Your task to perform on an android device: Search for logitech g502 on amazon, select the first entry, and add it to the cart. Image 0: 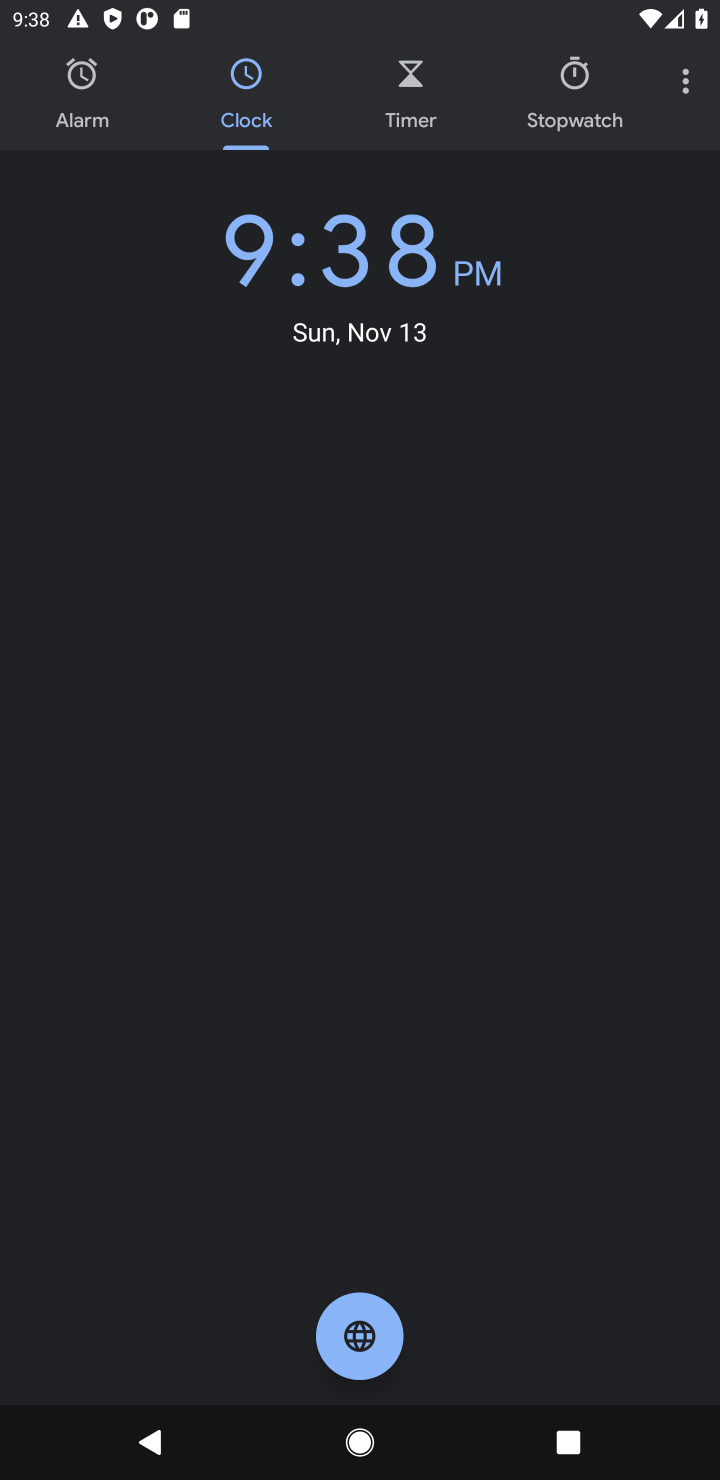
Step 0: press home button
Your task to perform on an android device: Search for logitech g502 on amazon, select the first entry, and add it to the cart. Image 1: 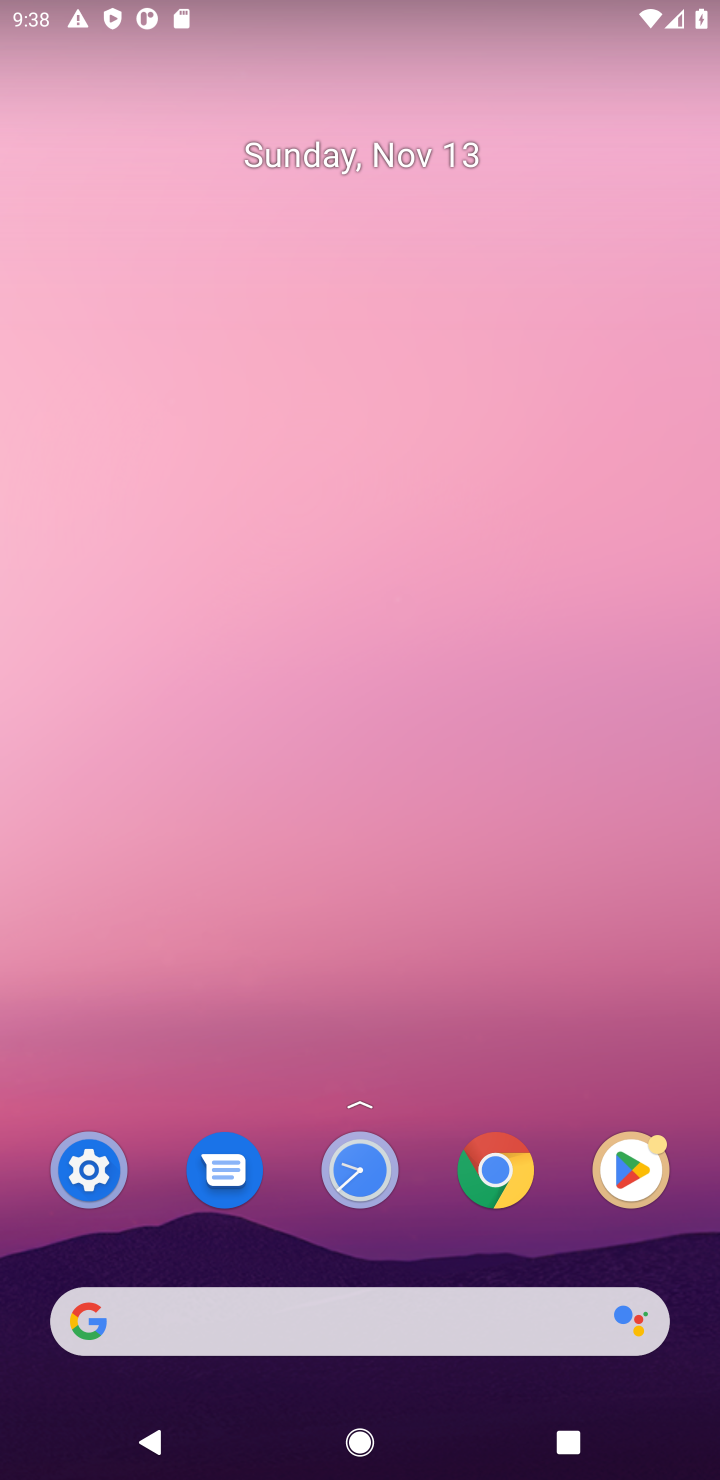
Step 1: click (340, 1330)
Your task to perform on an android device: Search for logitech g502 on amazon, select the first entry, and add it to the cart. Image 2: 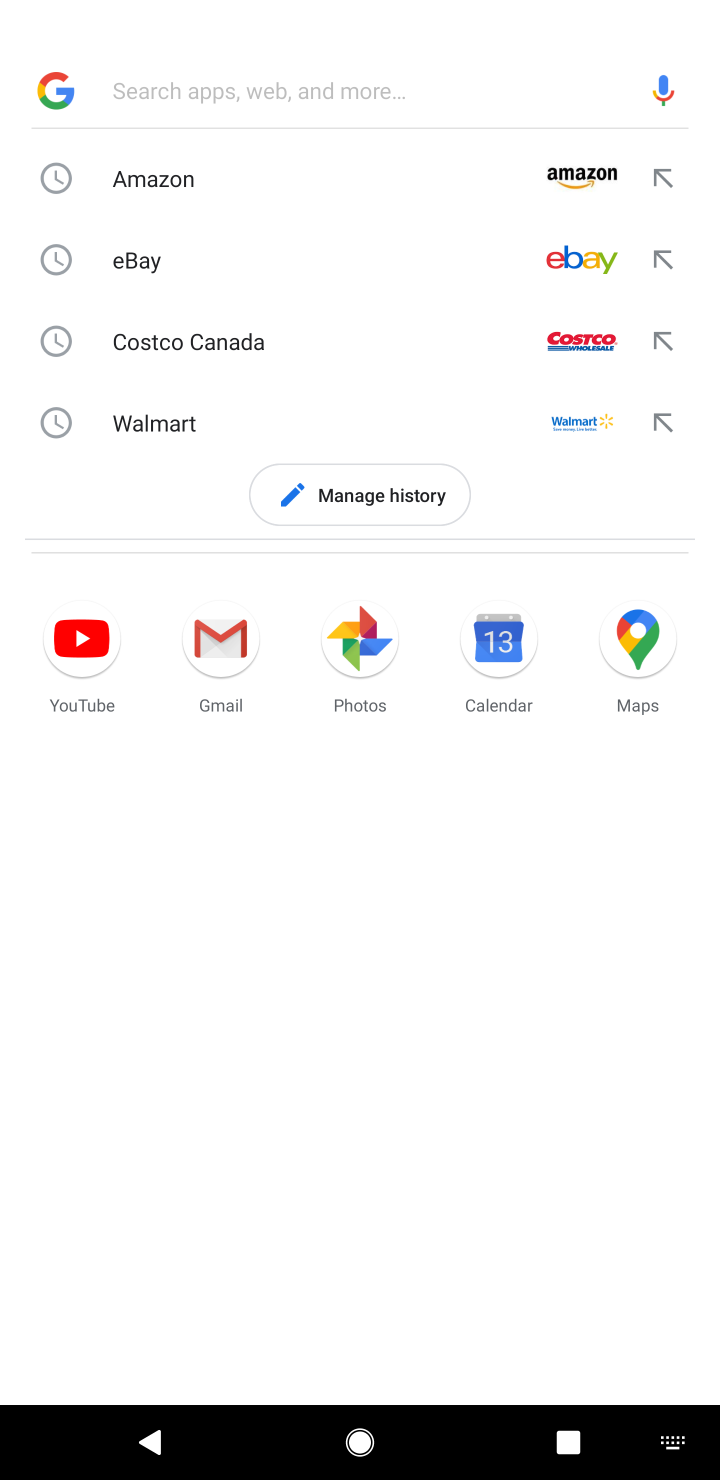
Step 2: type "amazon "
Your task to perform on an android device: Search for logitech g502 on amazon, select the first entry, and add it to the cart. Image 3: 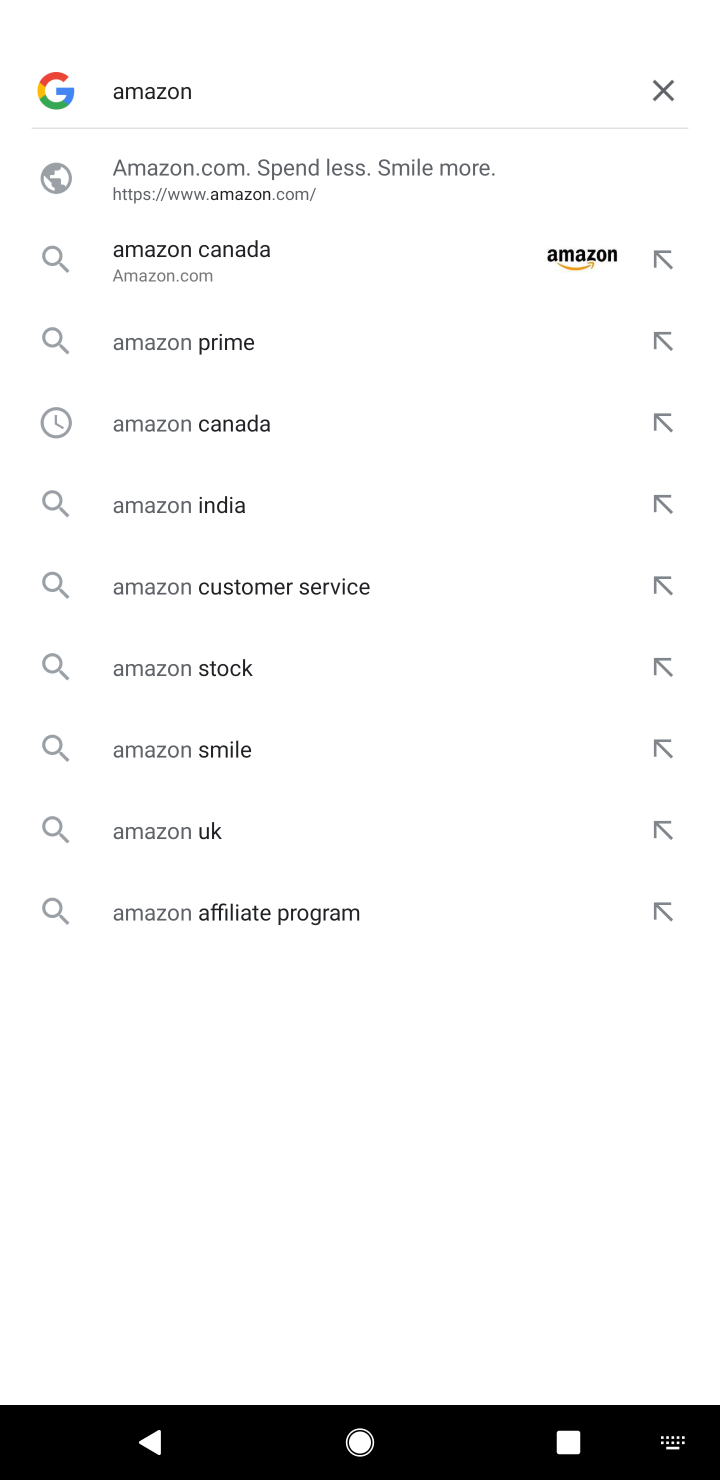
Step 3: click (274, 264)
Your task to perform on an android device: Search for logitech g502 on amazon, select the first entry, and add it to the cart. Image 4: 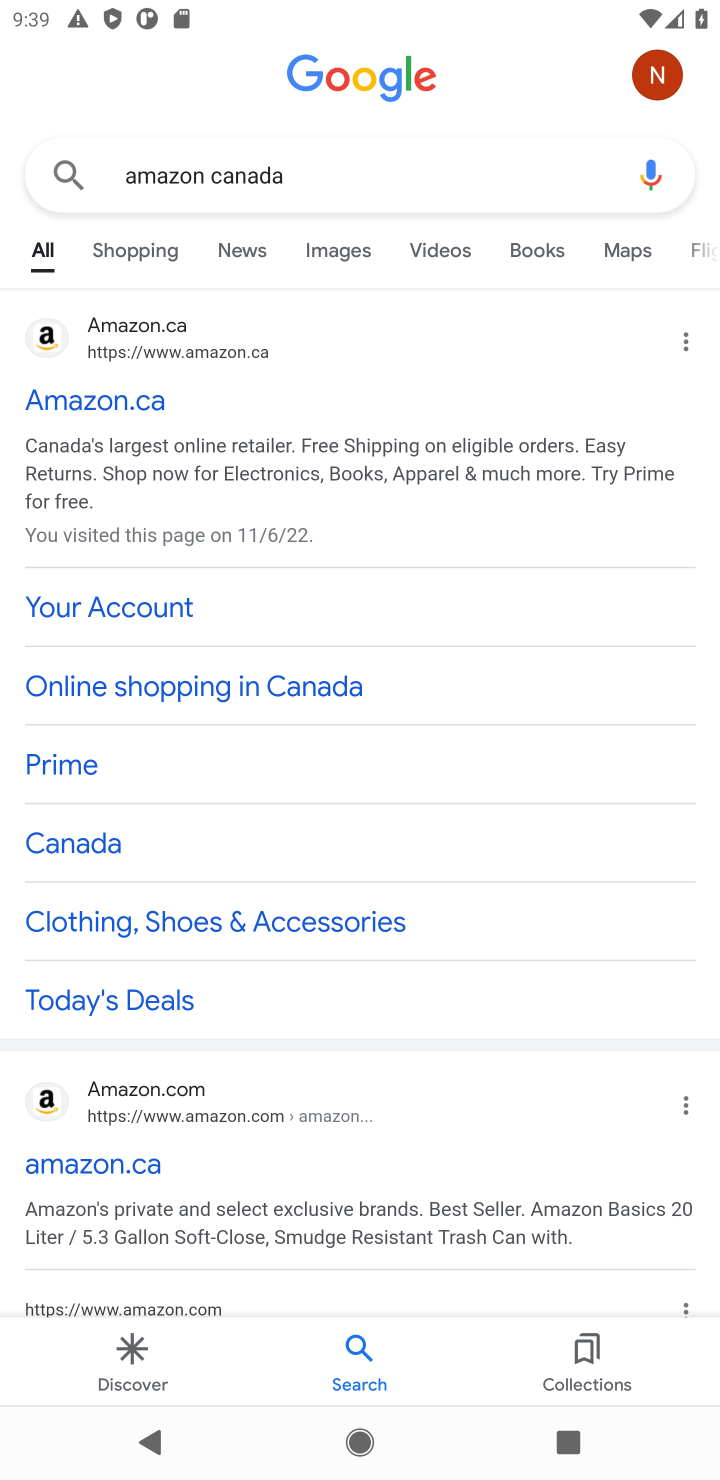
Step 4: click (72, 414)
Your task to perform on an android device: Search for logitech g502 on amazon, select the first entry, and add it to the cart. Image 5: 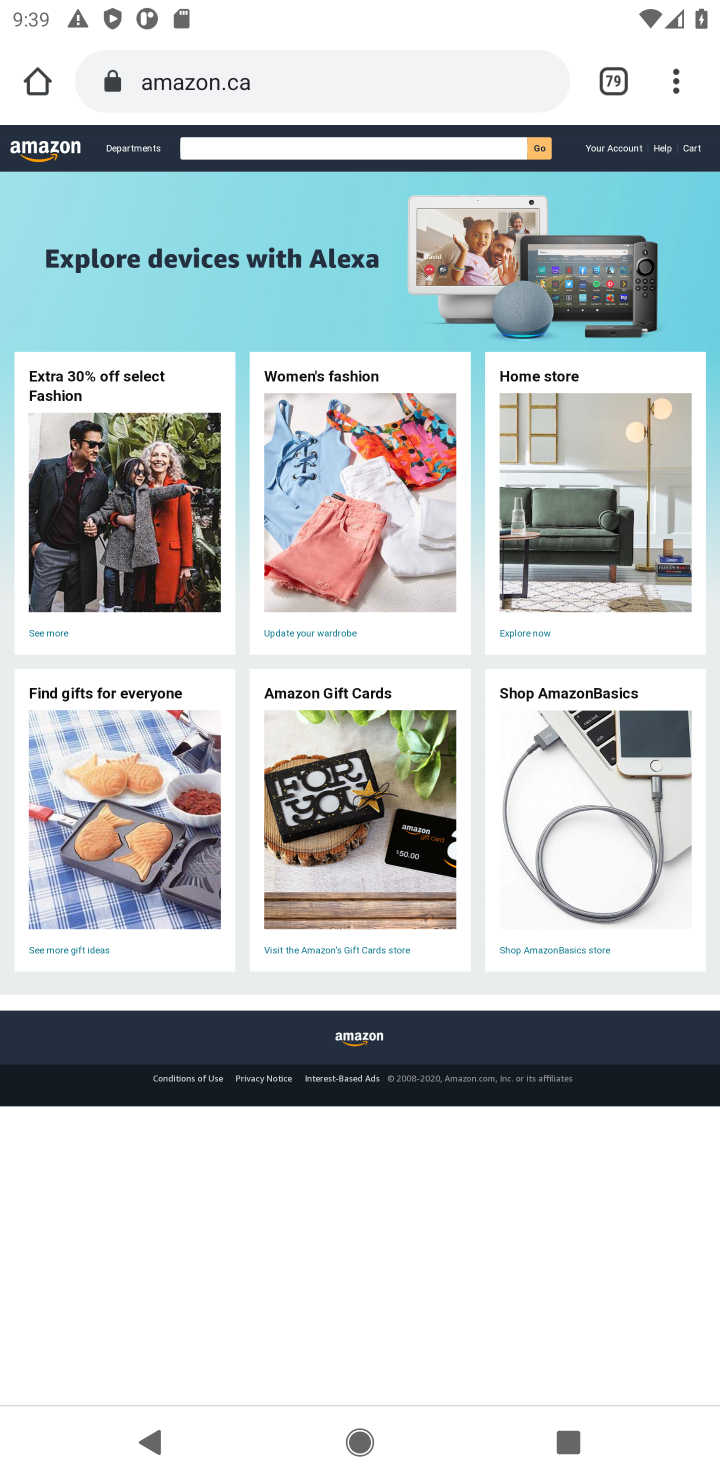
Step 5: click (251, 145)
Your task to perform on an android device: Search for logitech g502 on amazon, select the first entry, and add it to the cart. Image 6: 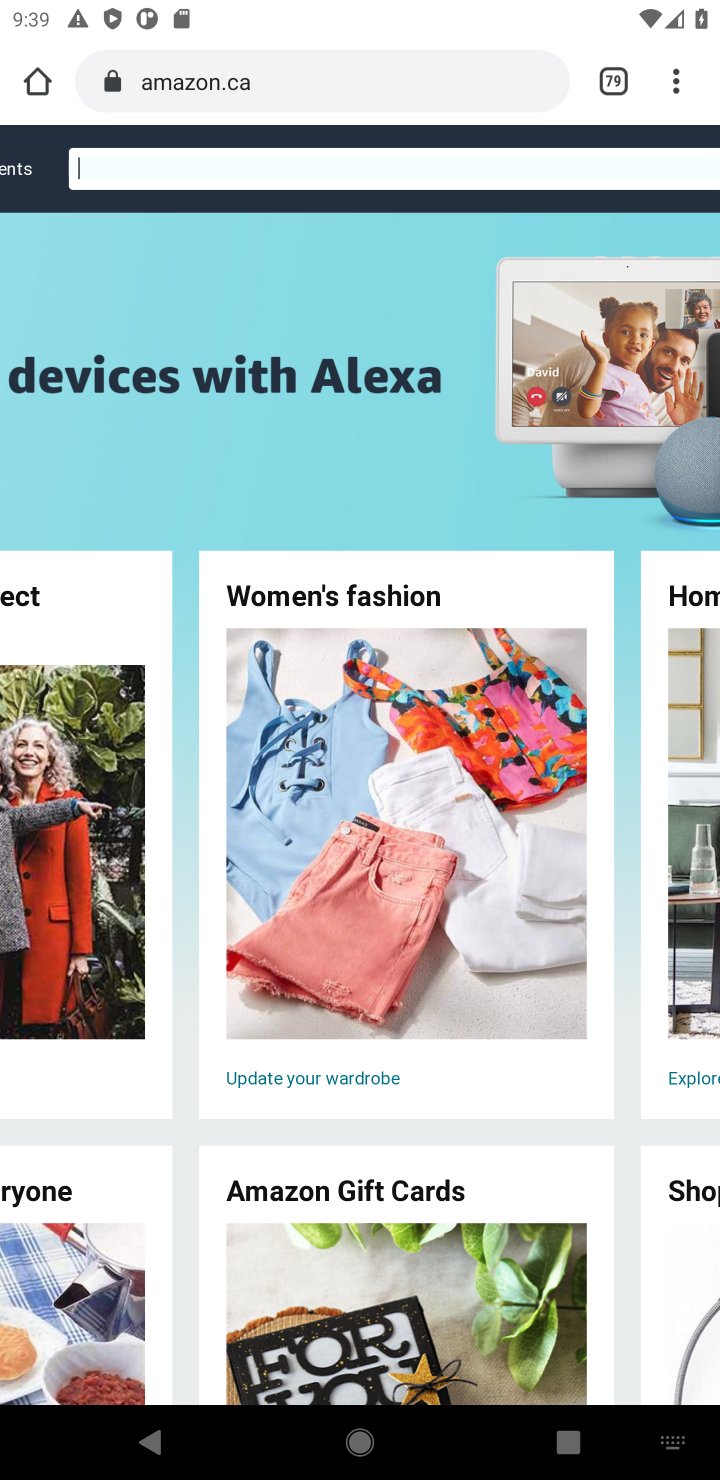
Step 6: type "logitech g502"
Your task to perform on an android device: Search for logitech g502 on amazon, select the first entry, and add it to the cart. Image 7: 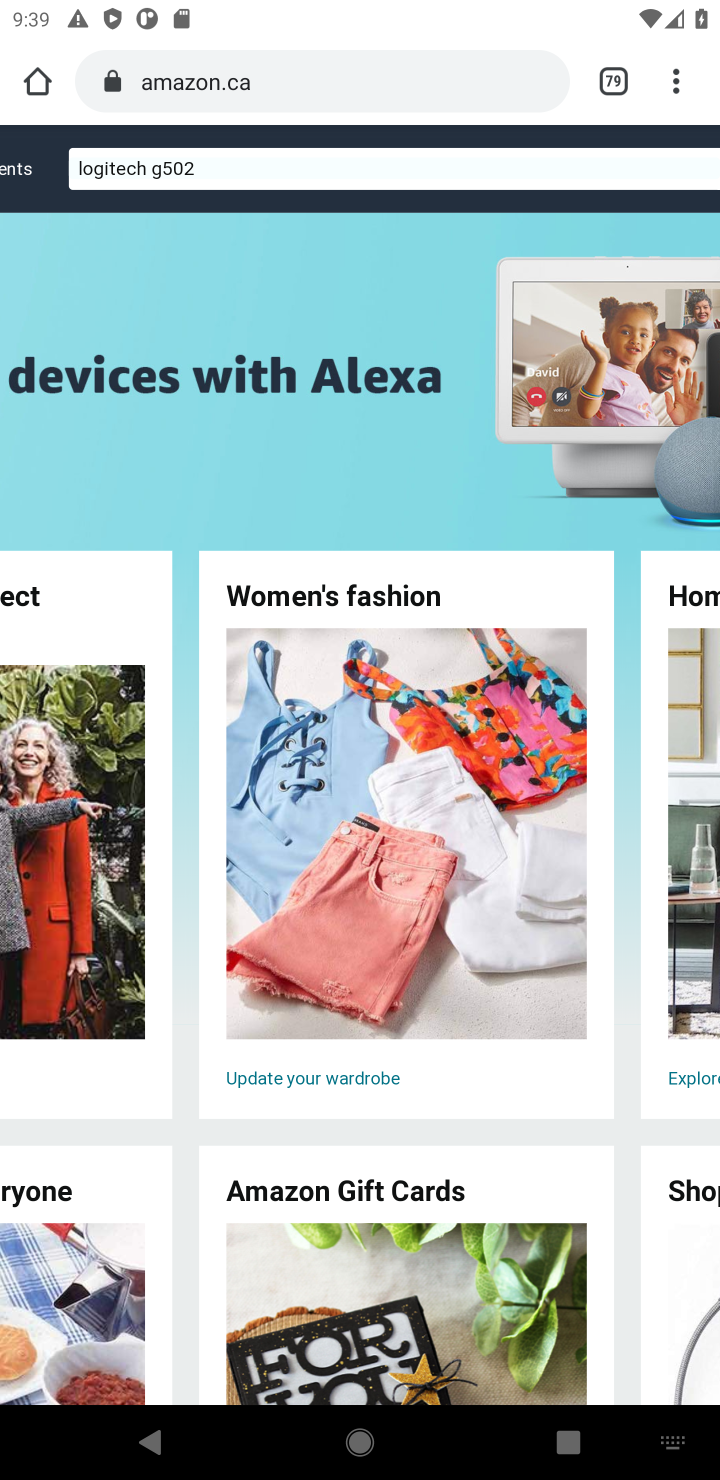
Step 7: task complete